Your task to perform on an android device: Open the map Image 0: 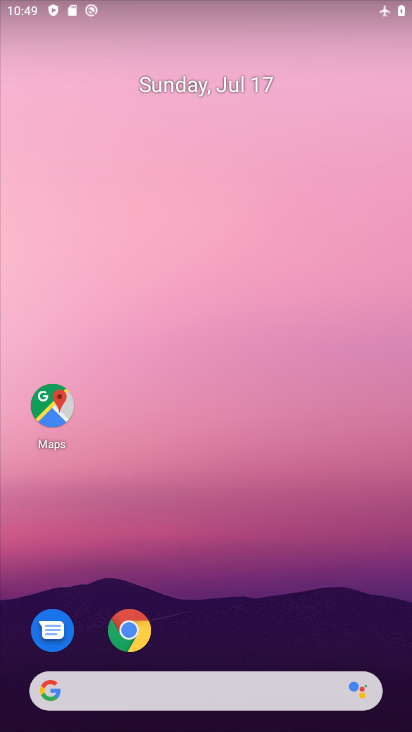
Step 0: drag from (203, 645) to (130, 179)
Your task to perform on an android device: Open the map Image 1: 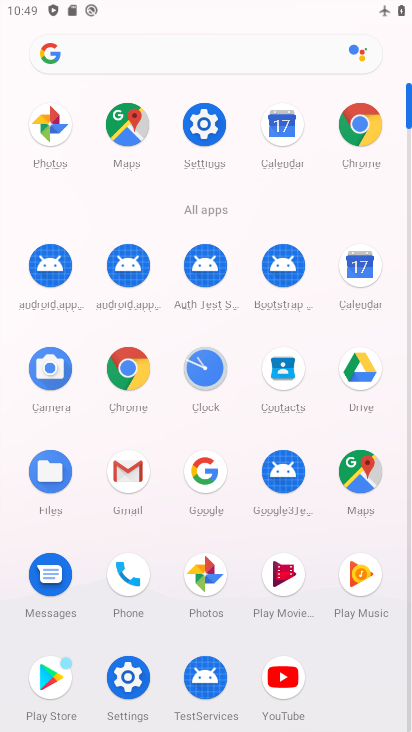
Step 1: click (371, 474)
Your task to perform on an android device: Open the map Image 2: 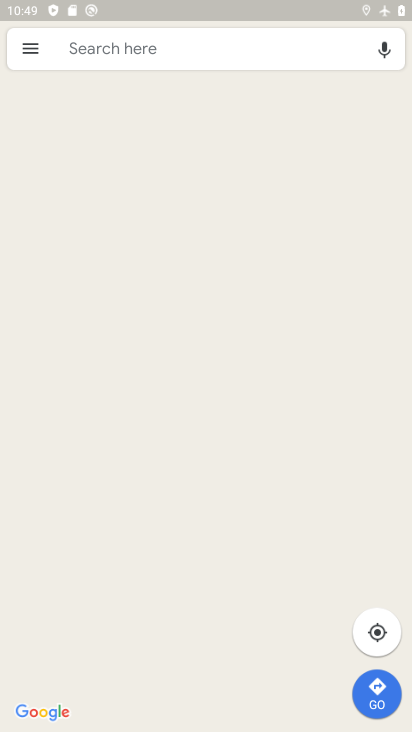
Step 2: task complete